Your task to perform on an android device: check data usage Image 0: 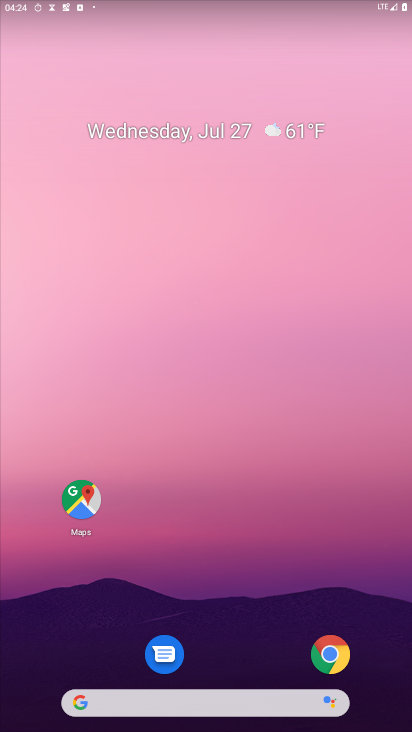
Step 0: drag from (224, 702) to (275, 10)
Your task to perform on an android device: check data usage Image 1: 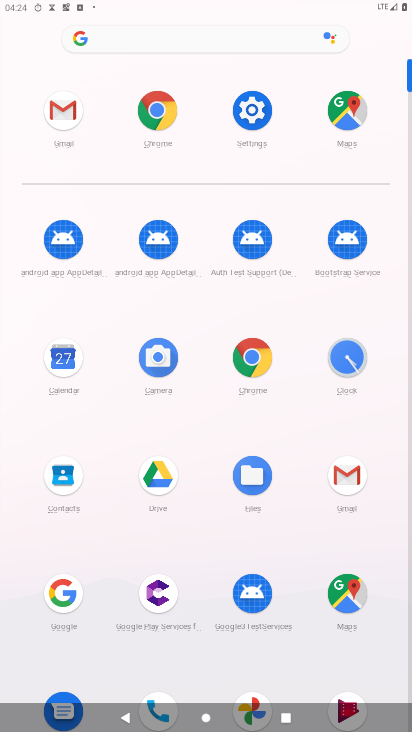
Step 1: click (255, 104)
Your task to perform on an android device: check data usage Image 2: 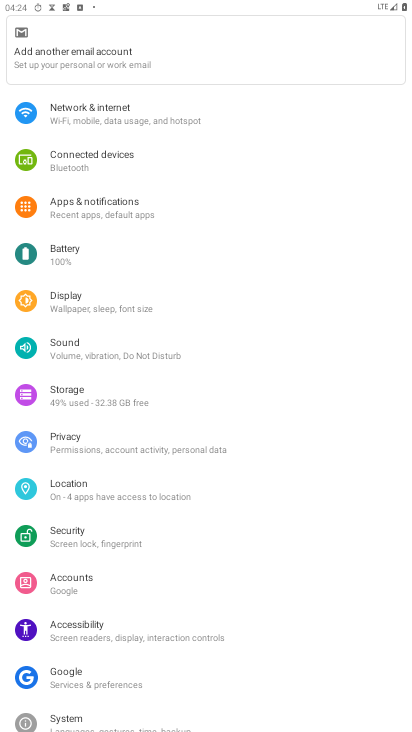
Step 2: click (150, 104)
Your task to perform on an android device: check data usage Image 3: 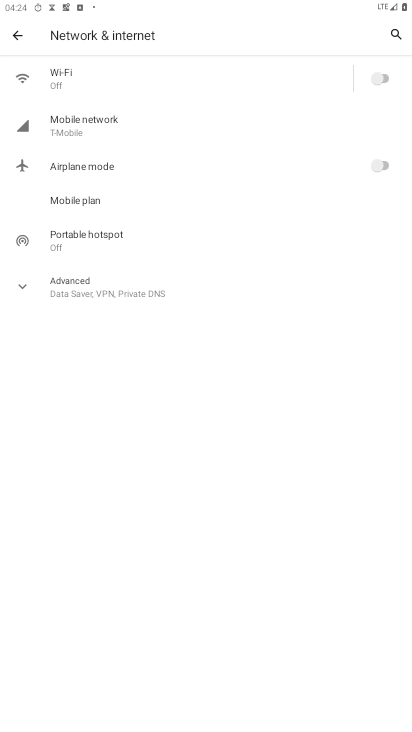
Step 3: task complete